Your task to perform on an android device: turn on data saver in the chrome app Image 0: 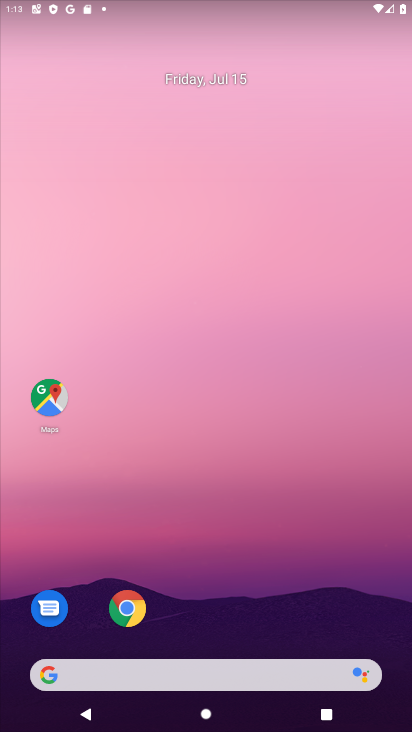
Step 0: click (127, 605)
Your task to perform on an android device: turn on data saver in the chrome app Image 1: 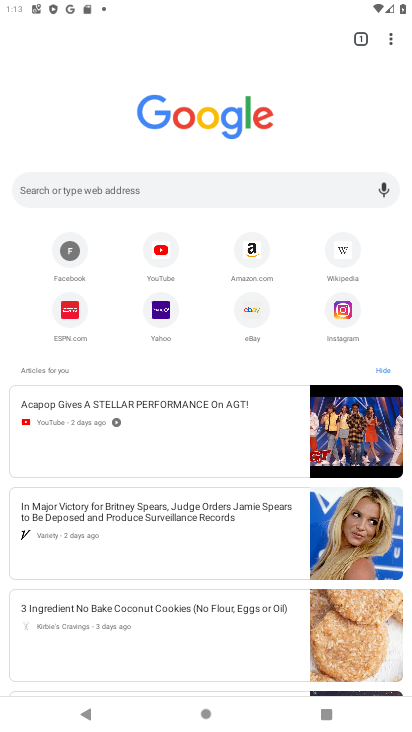
Step 1: click (393, 37)
Your task to perform on an android device: turn on data saver in the chrome app Image 2: 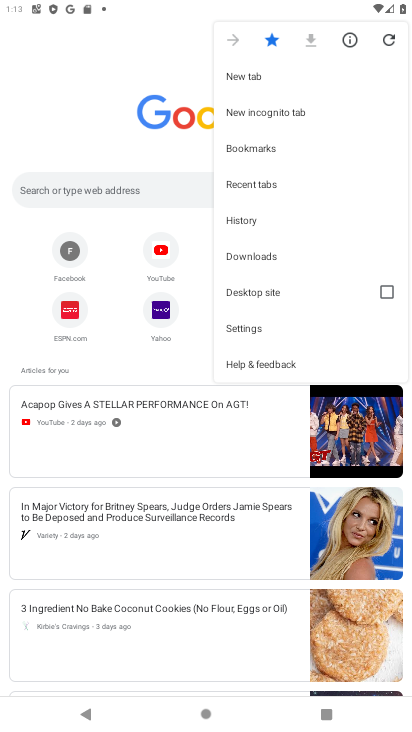
Step 2: click (288, 334)
Your task to perform on an android device: turn on data saver in the chrome app Image 3: 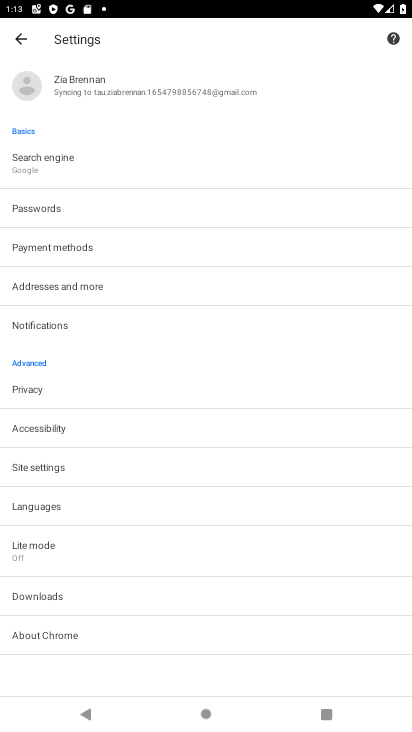
Step 3: click (78, 557)
Your task to perform on an android device: turn on data saver in the chrome app Image 4: 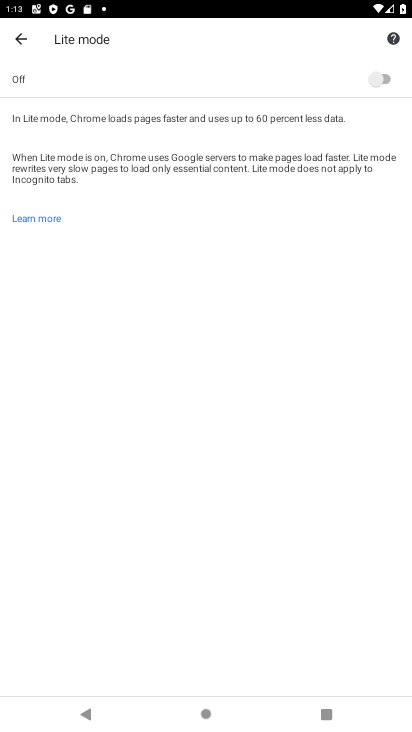
Step 4: click (383, 75)
Your task to perform on an android device: turn on data saver in the chrome app Image 5: 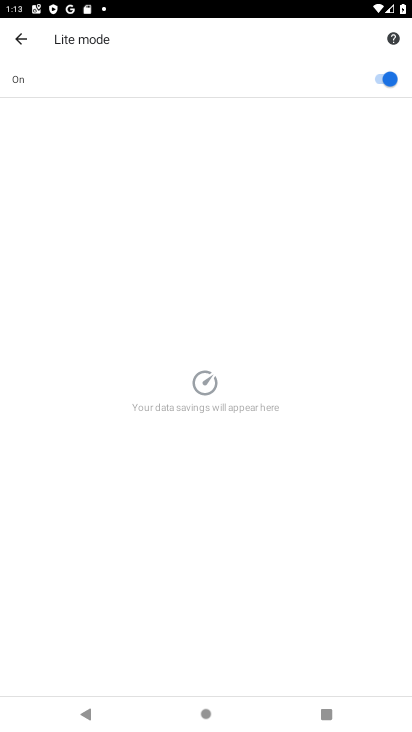
Step 5: task complete